Your task to perform on an android device: check android version Image 0: 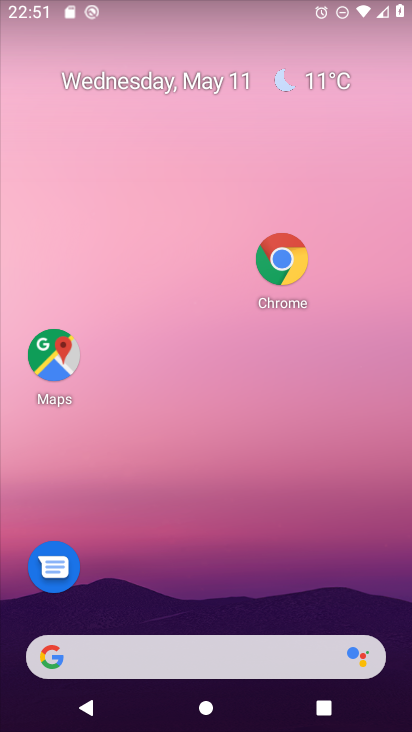
Step 0: drag from (155, 666) to (268, 115)
Your task to perform on an android device: check android version Image 1: 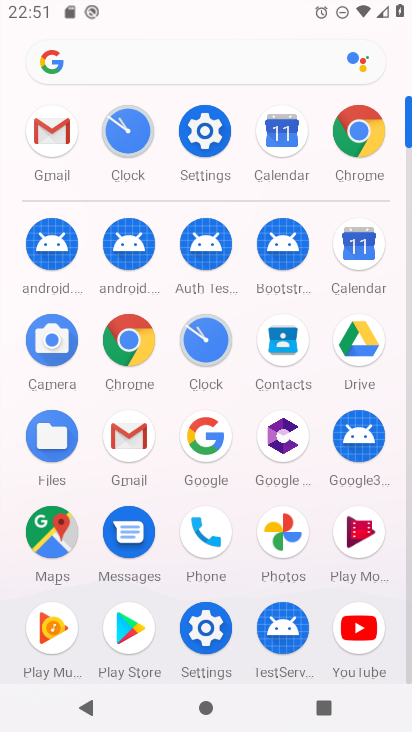
Step 1: click (210, 142)
Your task to perform on an android device: check android version Image 2: 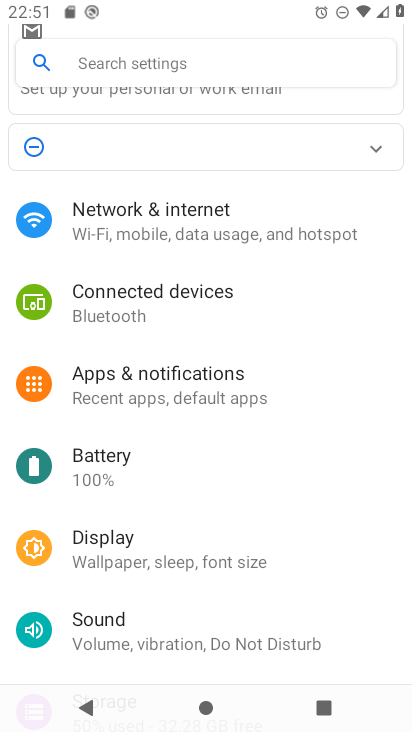
Step 2: drag from (148, 641) to (263, 334)
Your task to perform on an android device: check android version Image 3: 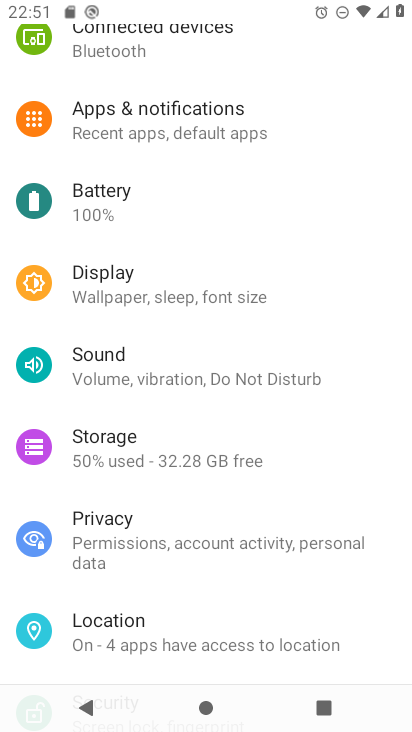
Step 3: drag from (188, 605) to (283, 241)
Your task to perform on an android device: check android version Image 4: 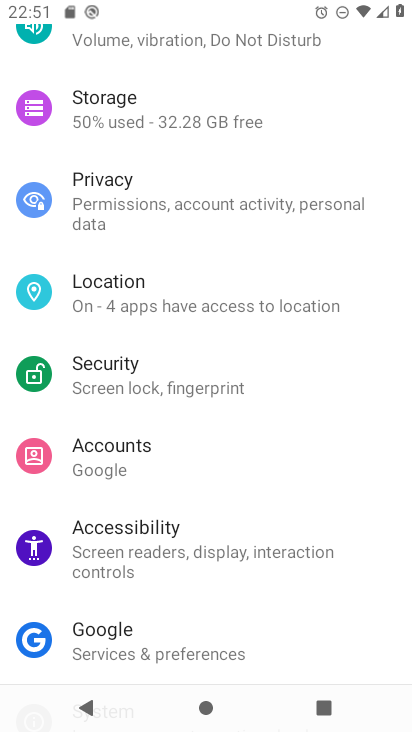
Step 4: drag from (184, 612) to (341, 168)
Your task to perform on an android device: check android version Image 5: 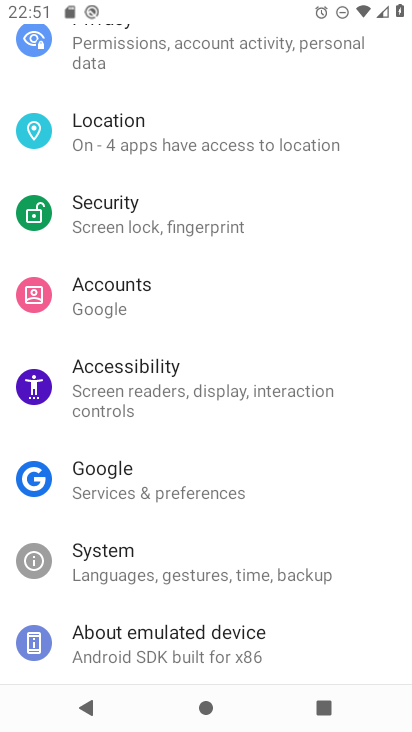
Step 5: click (180, 637)
Your task to perform on an android device: check android version Image 6: 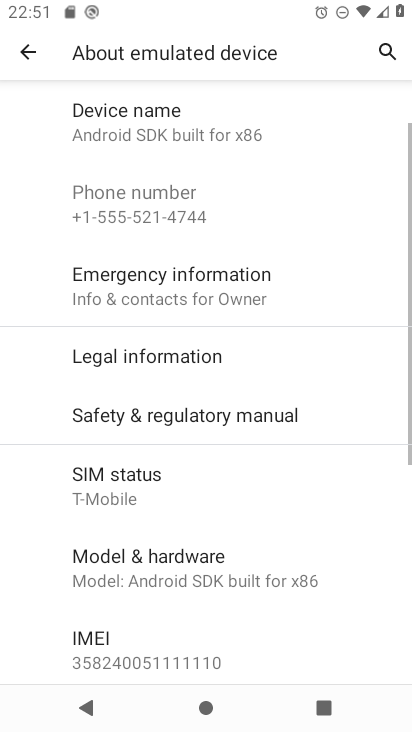
Step 6: drag from (184, 632) to (320, 179)
Your task to perform on an android device: check android version Image 7: 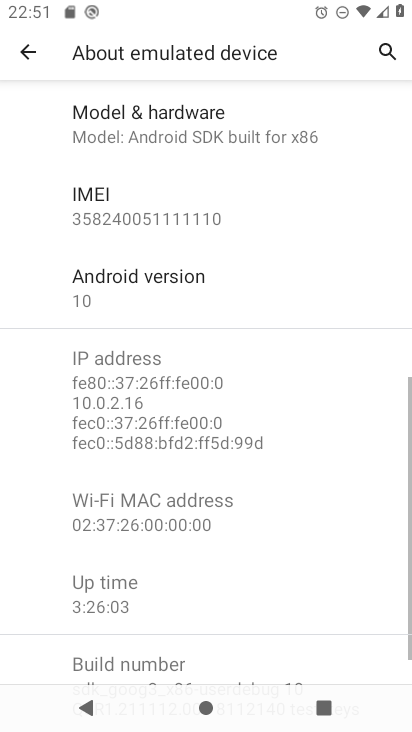
Step 7: click (139, 276)
Your task to perform on an android device: check android version Image 8: 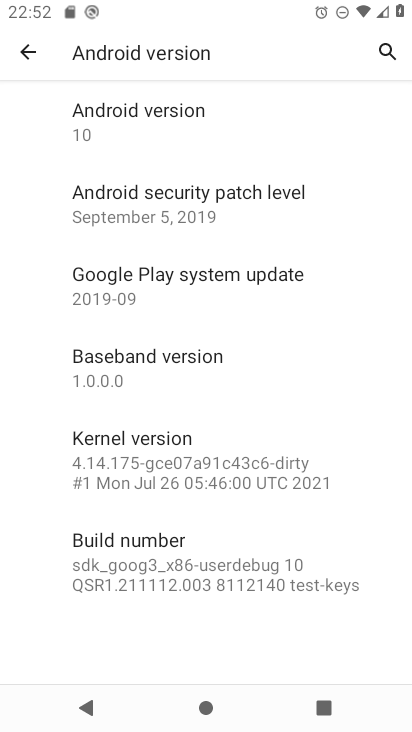
Step 8: task complete